Your task to perform on an android device: turn pop-ups on in chrome Image 0: 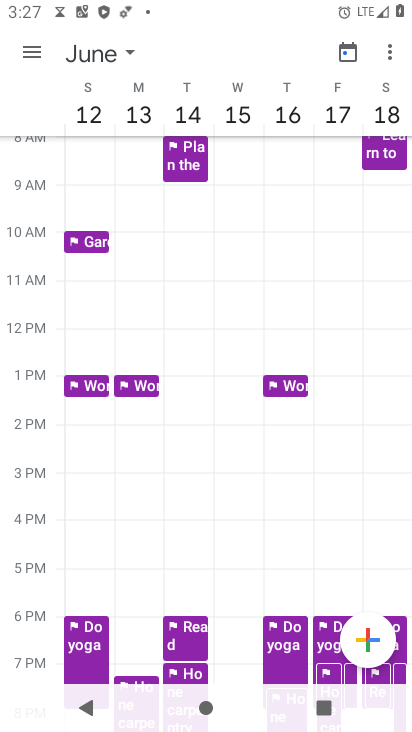
Step 0: press home button
Your task to perform on an android device: turn pop-ups on in chrome Image 1: 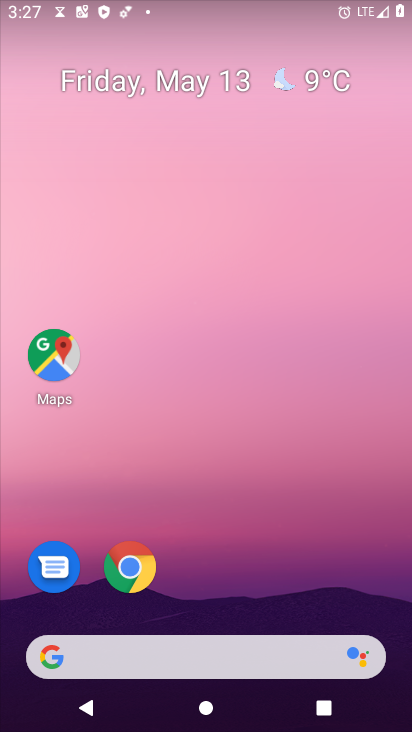
Step 1: click (132, 561)
Your task to perform on an android device: turn pop-ups on in chrome Image 2: 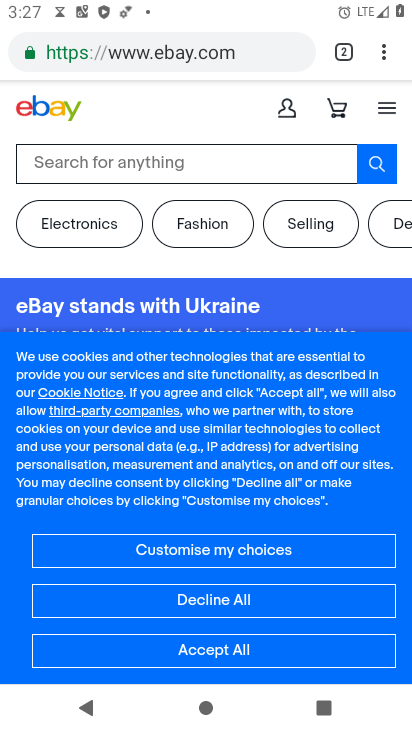
Step 2: click (381, 52)
Your task to perform on an android device: turn pop-ups on in chrome Image 3: 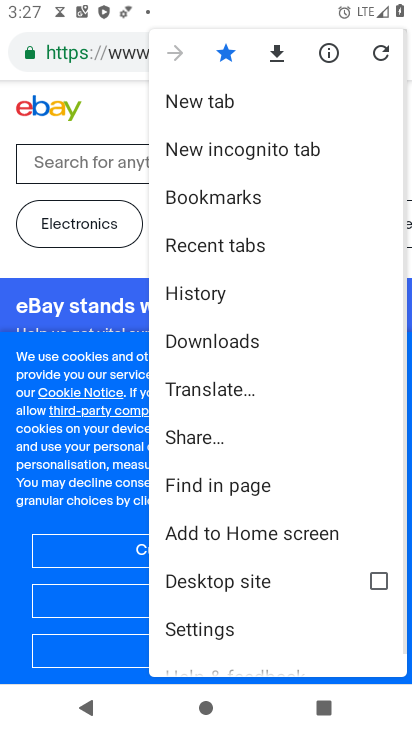
Step 3: drag from (262, 528) to (256, 184)
Your task to perform on an android device: turn pop-ups on in chrome Image 4: 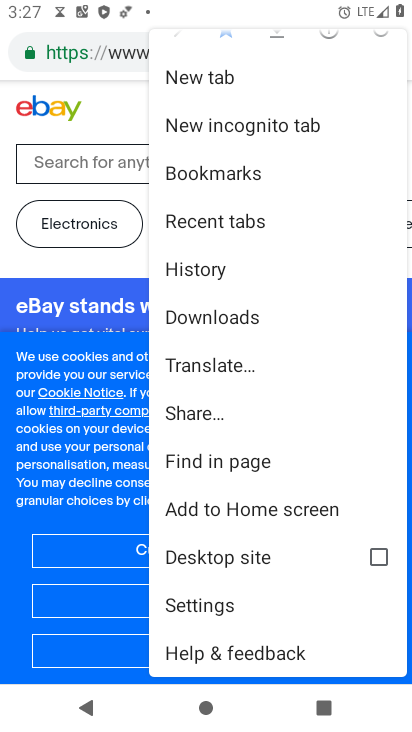
Step 4: click (197, 605)
Your task to perform on an android device: turn pop-ups on in chrome Image 5: 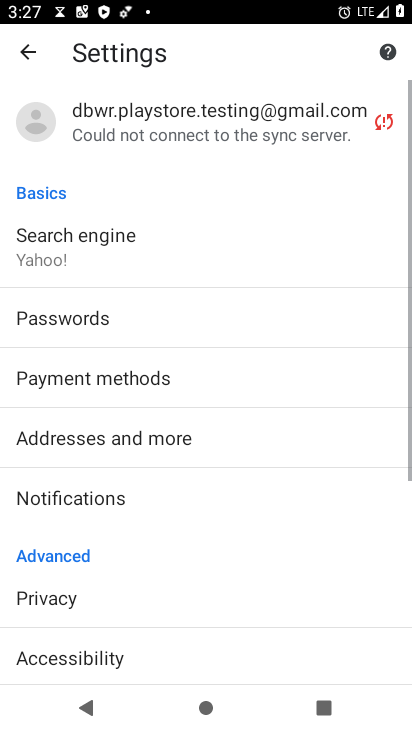
Step 5: drag from (226, 501) to (242, 301)
Your task to perform on an android device: turn pop-ups on in chrome Image 6: 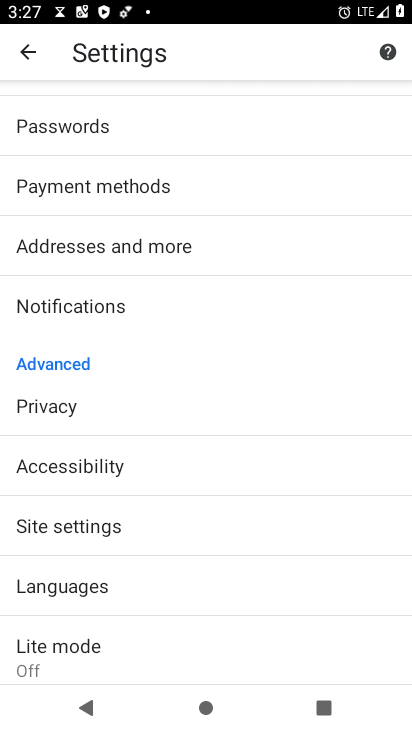
Step 6: click (73, 532)
Your task to perform on an android device: turn pop-ups on in chrome Image 7: 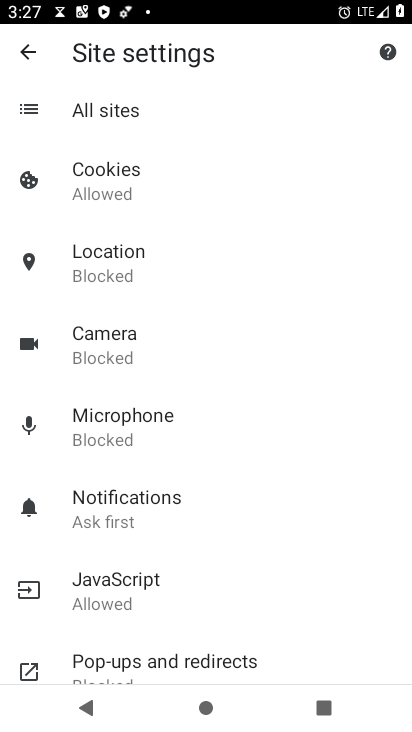
Step 7: click (146, 659)
Your task to perform on an android device: turn pop-ups on in chrome Image 8: 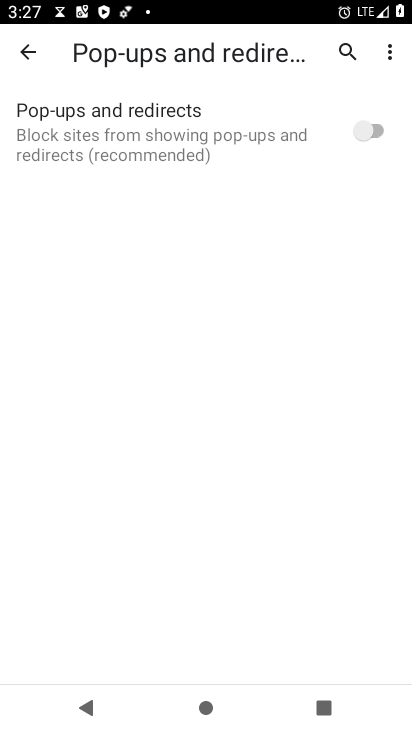
Step 8: click (366, 133)
Your task to perform on an android device: turn pop-ups on in chrome Image 9: 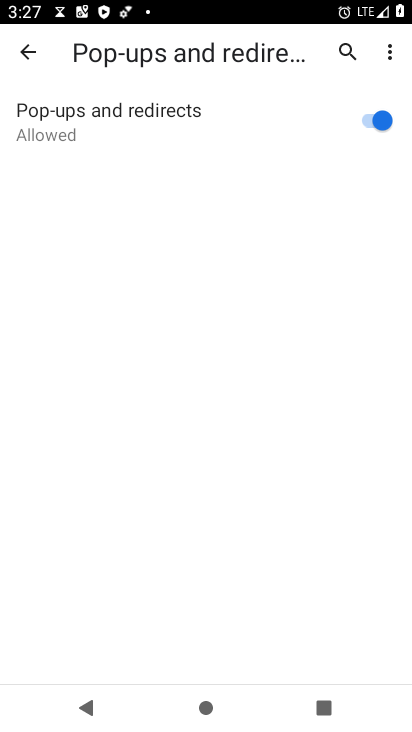
Step 9: task complete